Your task to perform on an android device: Open settings Image 0: 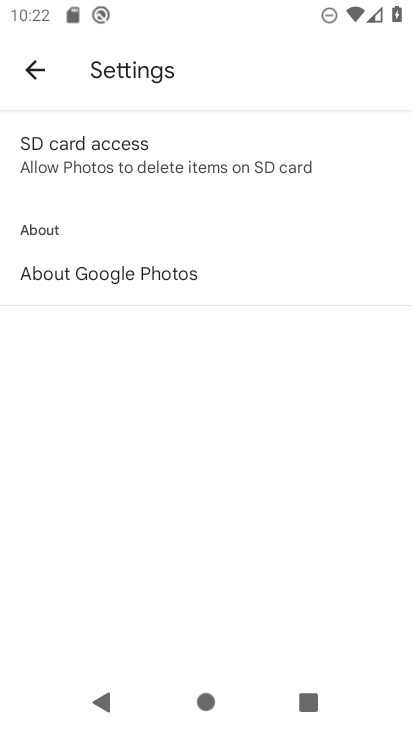
Step 0: press home button
Your task to perform on an android device: Open settings Image 1: 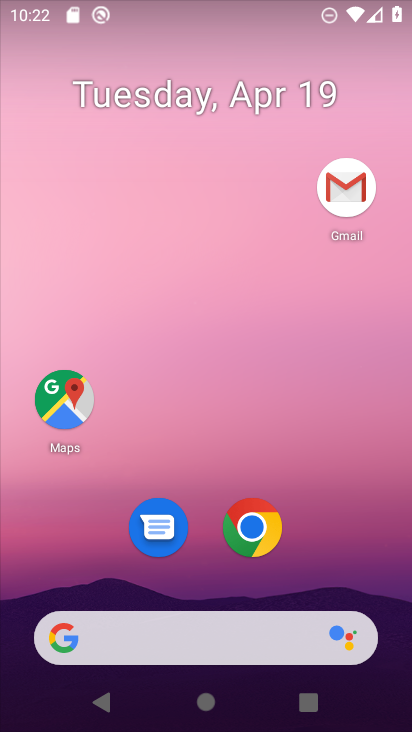
Step 1: drag from (376, 472) to (359, 96)
Your task to perform on an android device: Open settings Image 2: 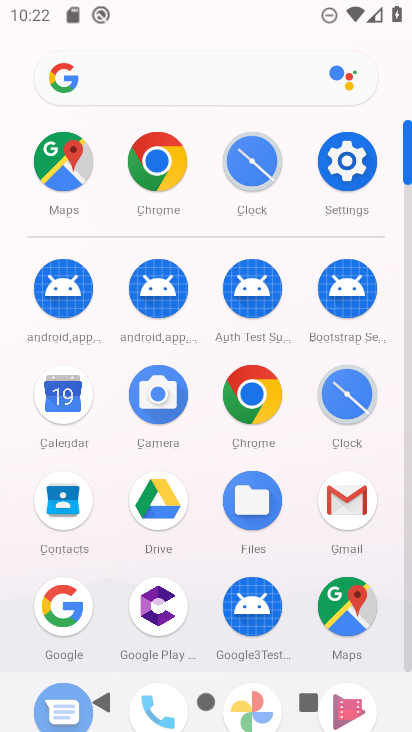
Step 2: click (365, 187)
Your task to perform on an android device: Open settings Image 3: 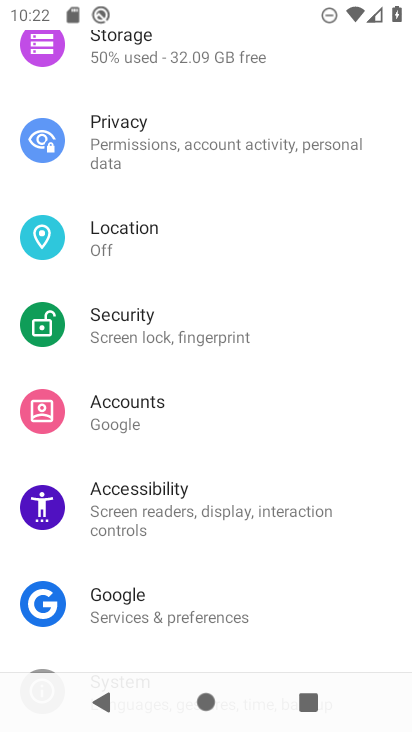
Step 3: task complete